Your task to perform on an android device: Go to notification settings Image 0: 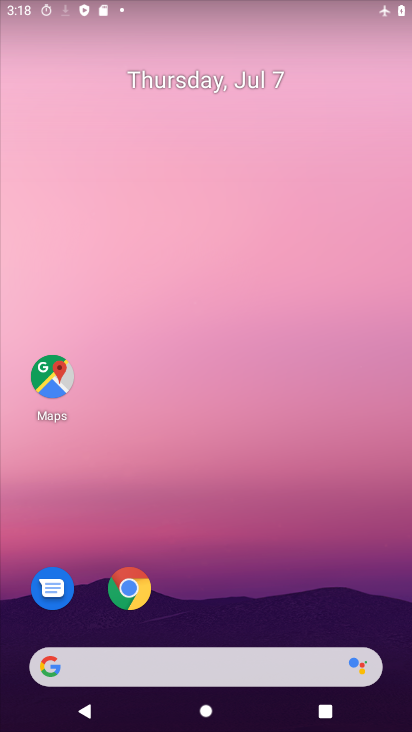
Step 0: drag from (232, 580) to (241, 198)
Your task to perform on an android device: Go to notification settings Image 1: 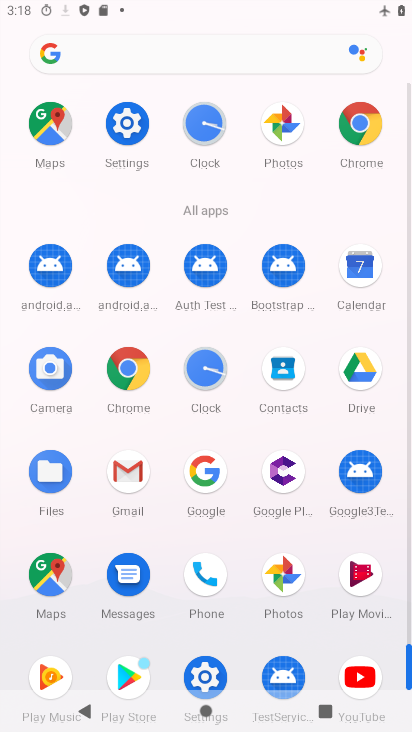
Step 1: click (135, 139)
Your task to perform on an android device: Go to notification settings Image 2: 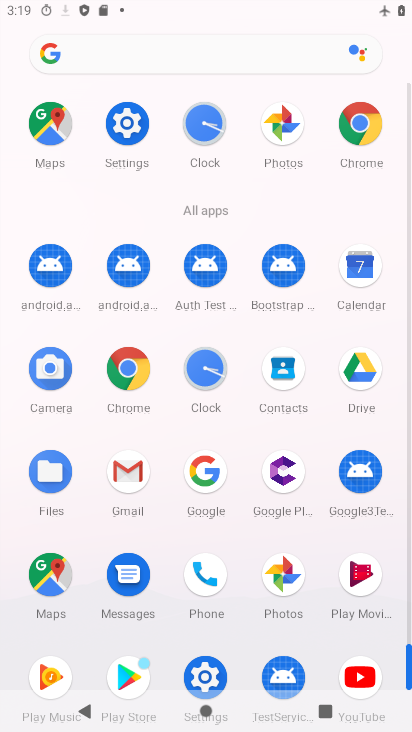
Step 2: click (209, 134)
Your task to perform on an android device: Go to notification settings Image 3: 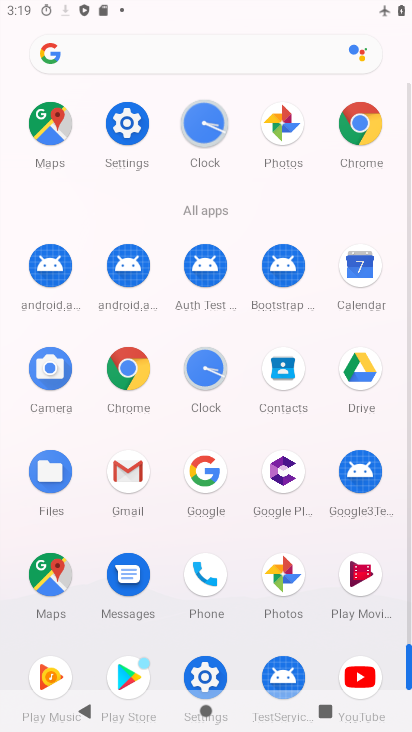
Step 3: click (210, 134)
Your task to perform on an android device: Go to notification settings Image 4: 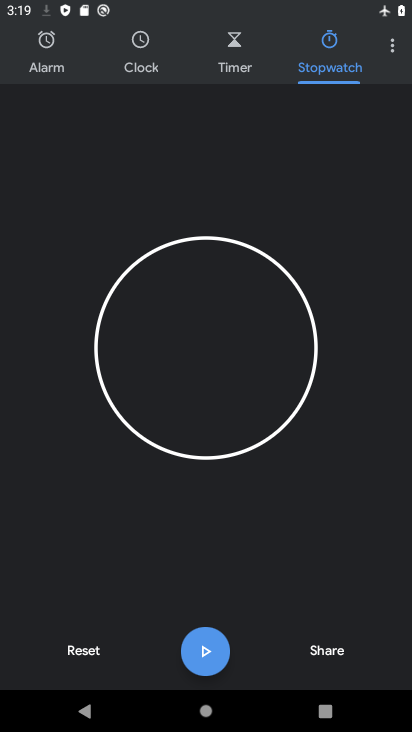
Step 4: press back button
Your task to perform on an android device: Go to notification settings Image 5: 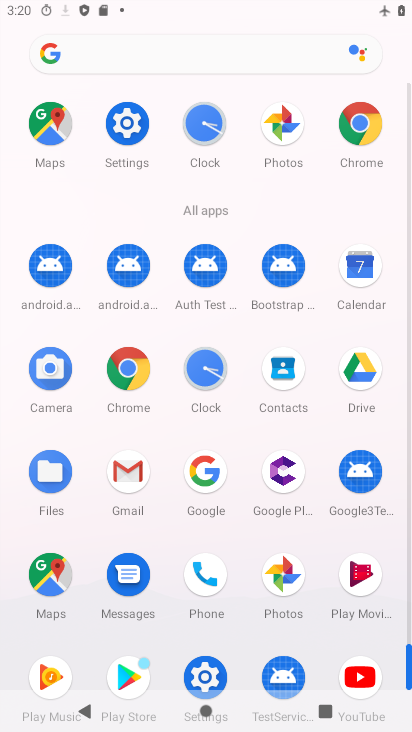
Step 5: click (127, 135)
Your task to perform on an android device: Go to notification settings Image 6: 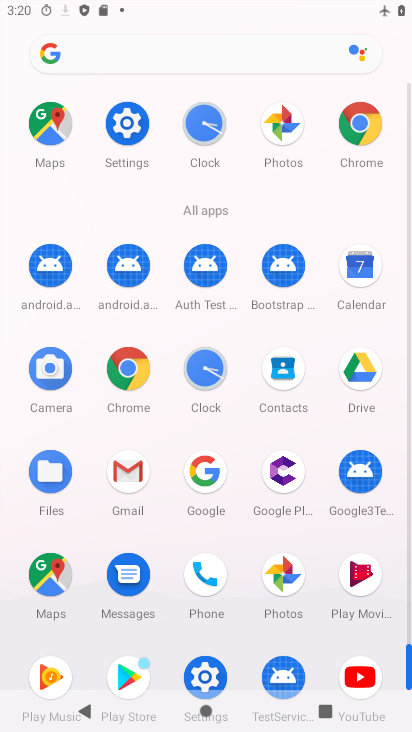
Step 6: drag from (134, 144) to (130, 225)
Your task to perform on an android device: Go to notification settings Image 7: 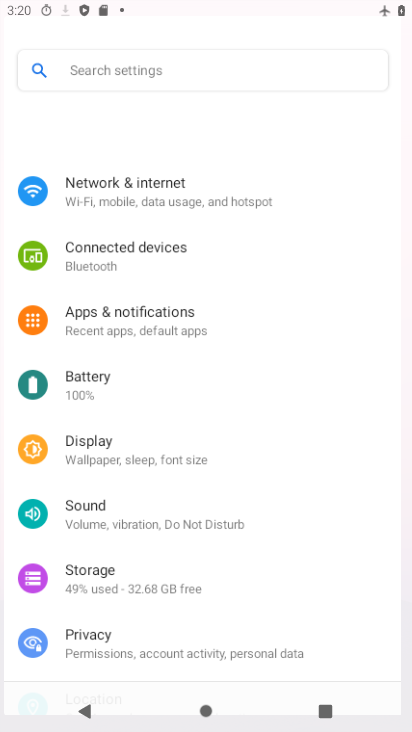
Step 7: click (203, 660)
Your task to perform on an android device: Go to notification settings Image 8: 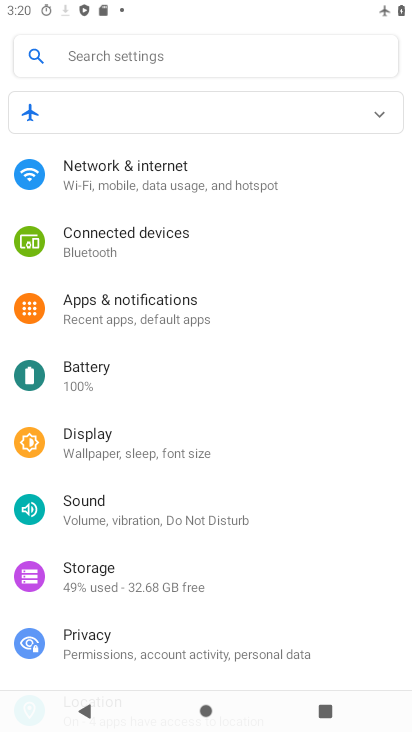
Step 8: click (198, 651)
Your task to perform on an android device: Go to notification settings Image 9: 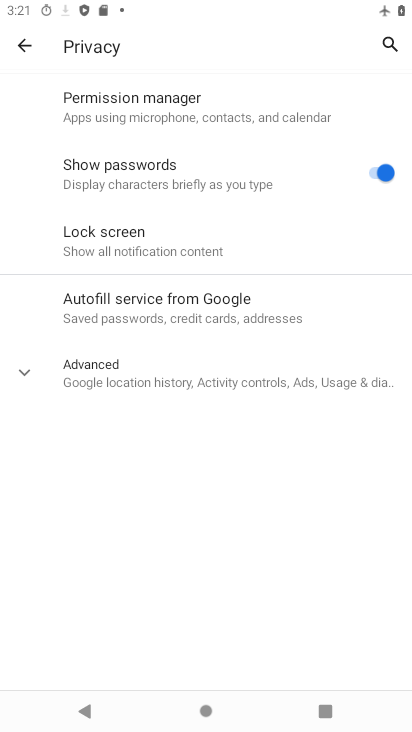
Step 9: click (31, 31)
Your task to perform on an android device: Go to notification settings Image 10: 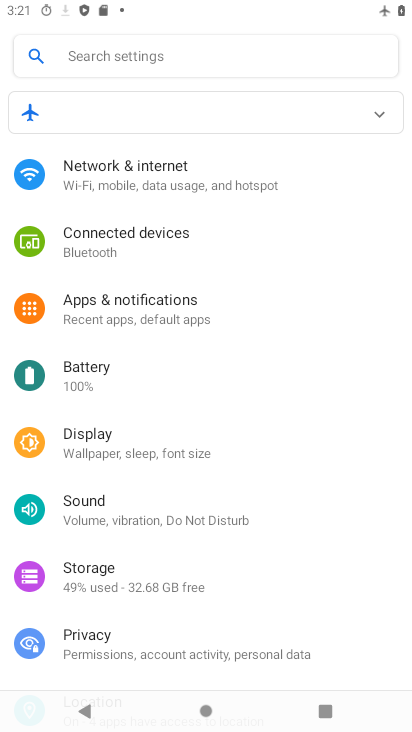
Step 10: click (153, 176)
Your task to perform on an android device: Go to notification settings Image 11: 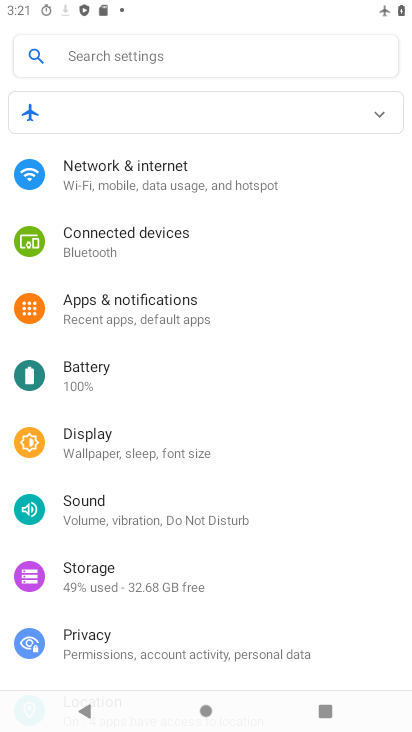
Step 11: click (122, 175)
Your task to perform on an android device: Go to notification settings Image 12: 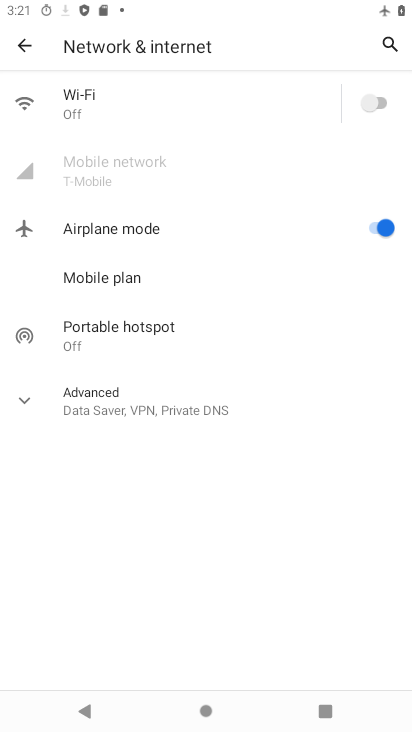
Step 12: click (121, 174)
Your task to perform on an android device: Go to notification settings Image 13: 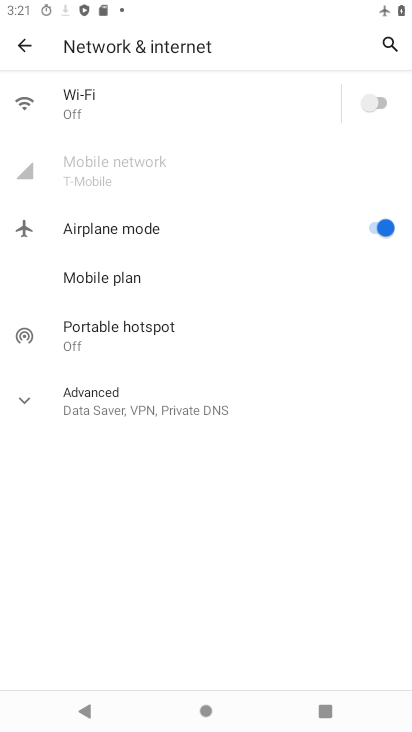
Step 13: click (17, 45)
Your task to perform on an android device: Go to notification settings Image 14: 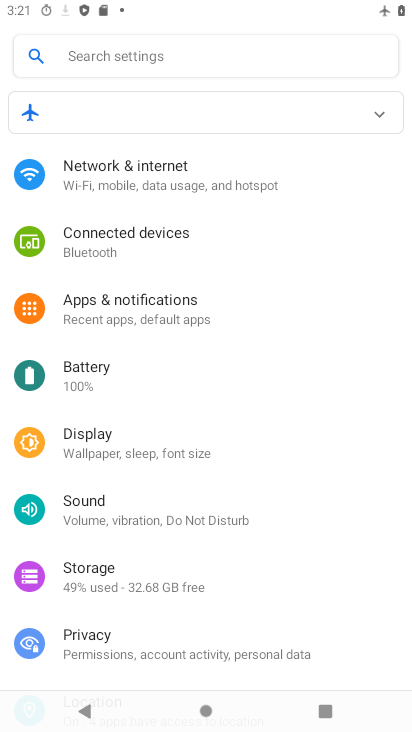
Step 14: click (137, 311)
Your task to perform on an android device: Go to notification settings Image 15: 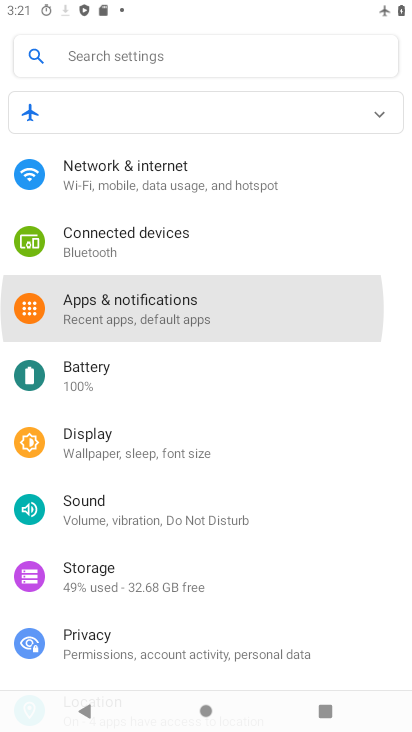
Step 15: click (136, 312)
Your task to perform on an android device: Go to notification settings Image 16: 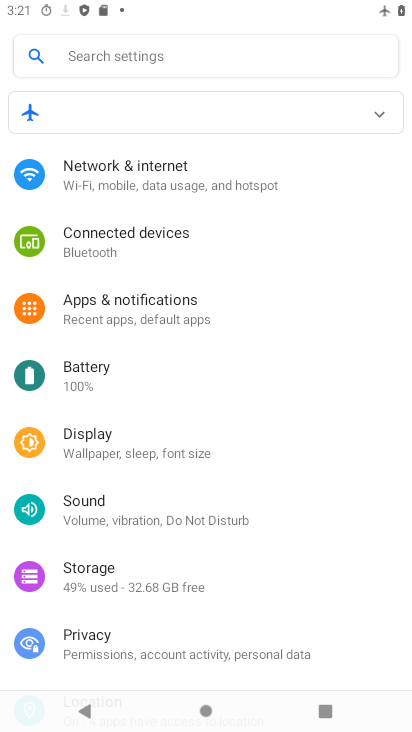
Step 16: click (138, 312)
Your task to perform on an android device: Go to notification settings Image 17: 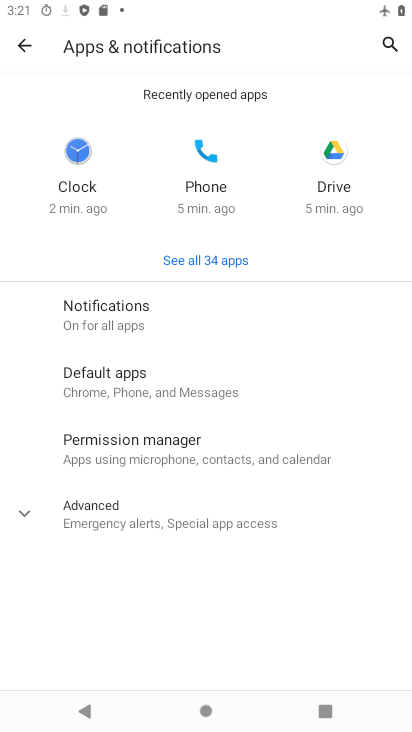
Step 17: task complete